Your task to perform on an android device: Open the Play Movies app and select the watchlist tab. Image 0: 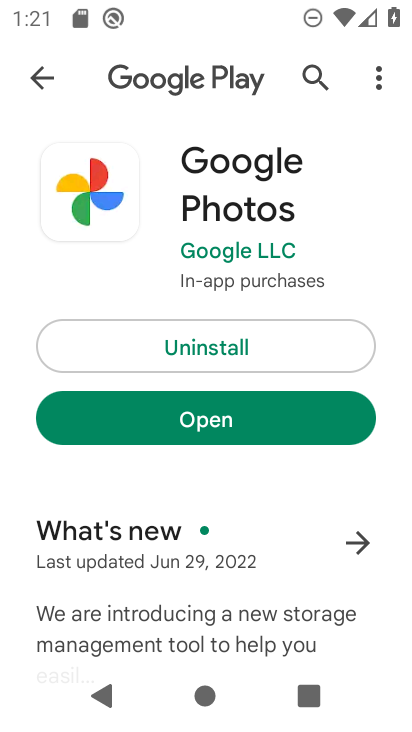
Step 0: press home button
Your task to perform on an android device: Open the Play Movies app and select the watchlist tab. Image 1: 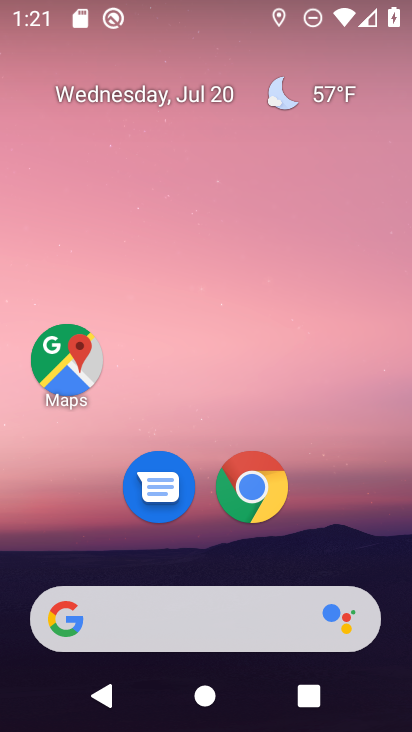
Step 1: drag from (367, 548) to (379, 336)
Your task to perform on an android device: Open the Play Movies app and select the watchlist tab. Image 2: 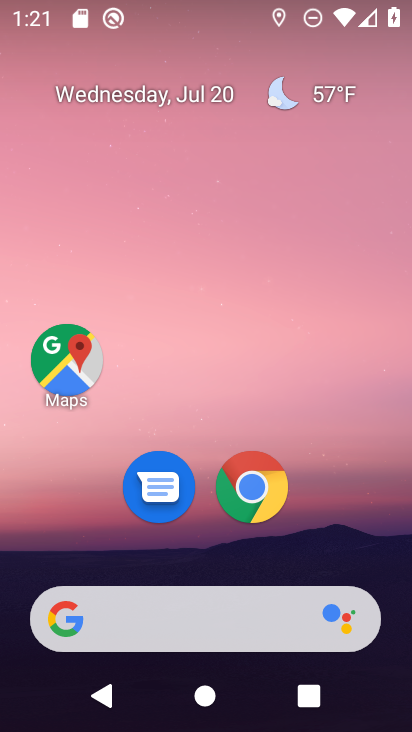
Step 2: drag from (370, 530) to (390, 66)
Your task to perform on an android device: Open the Play Movies app and select the watchlist tab. Image 3: 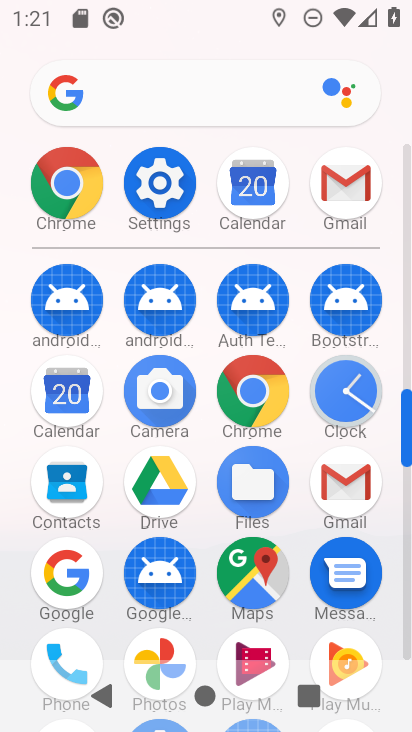
Step 3: click (238, 657)
Your task to perform on an android device: Open the Play Movies app and select the watchlist tab. Image 4: 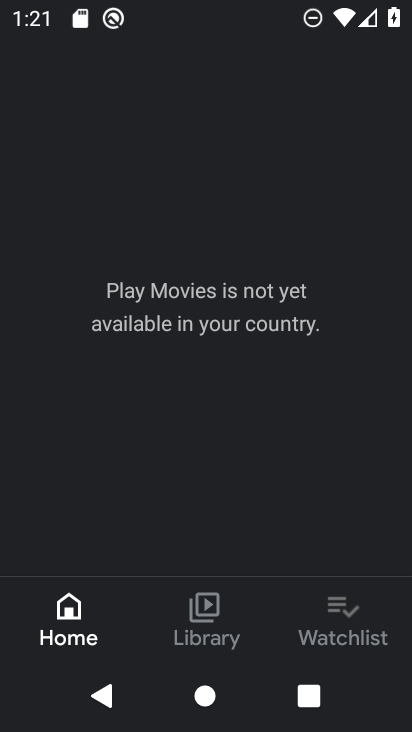
Step 4: click (321, 637)
Your task to perform on an android device: Open the Play Movies app and select the watchlist tab. Image 5: 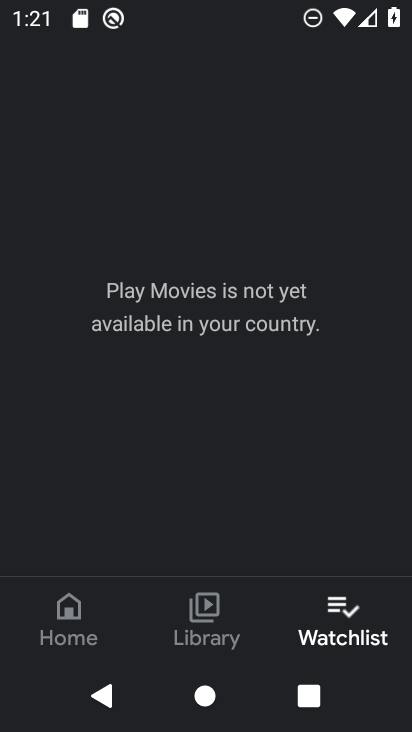
Step 5: task complete